Your task to perform on an android device: Open Youtube and go to the subscriptions tab Image 0: 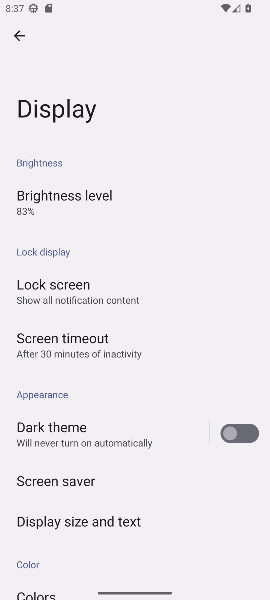
Step 0: press home button
Your task to perform on an android device: Open Youtube and go to the subscriptions tab Image 1: 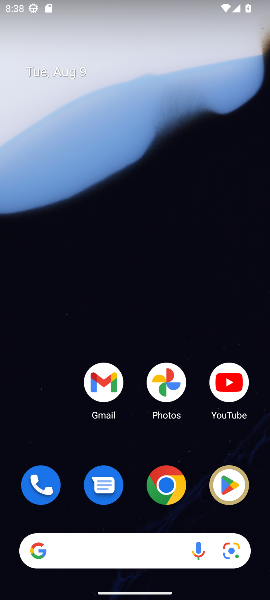
Step 1: click (233, 380)
Your task to perform on an android device: Open Youtube and go to the subscriptions tab Image 2: 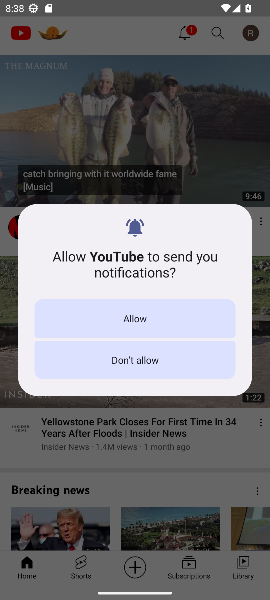
Step 2: click (158, 319)
Your task to perform on an android device: Open Youtube and go to the subscriptions tab Image 3: 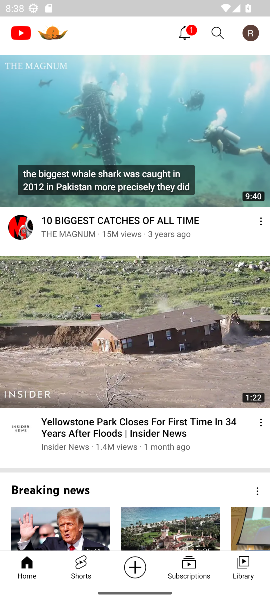
Step 3: click (184, 566)
Your task to perform on an android device: Open Youtube and go to the subscriptions tab Image 4: 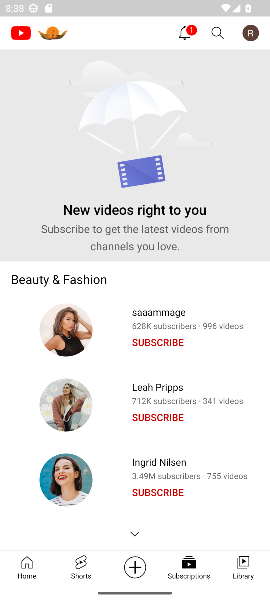
Step 4: task complete